Your task to perform on an android device: change notifications settings Image 0: 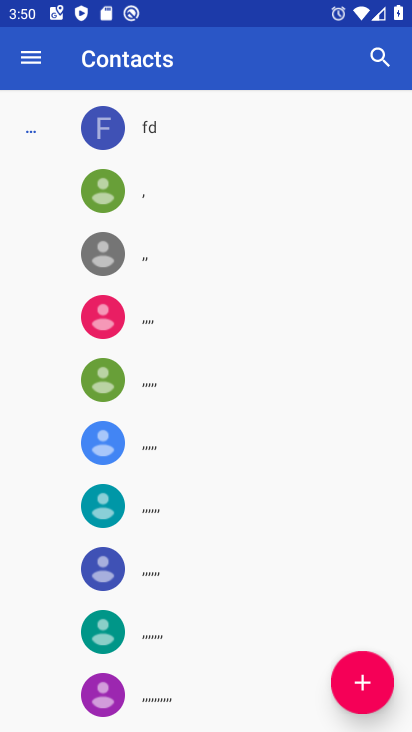
Step 0: press home button
Your task to perform on an android device: change notifications settings Image 1: 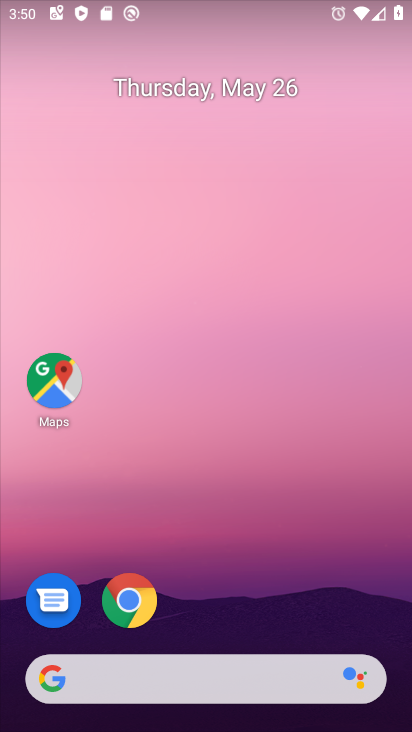
Step 1: click (265, 595)
Your task to perform on an android device: change notifications settings Image 2: 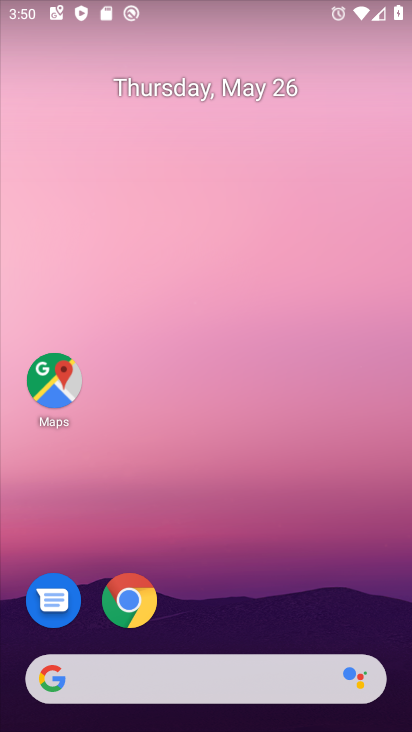
Step 2: drag from (245, 632) to (294, 43)
Your task to perform on an android device: change notifications settings Image 3: 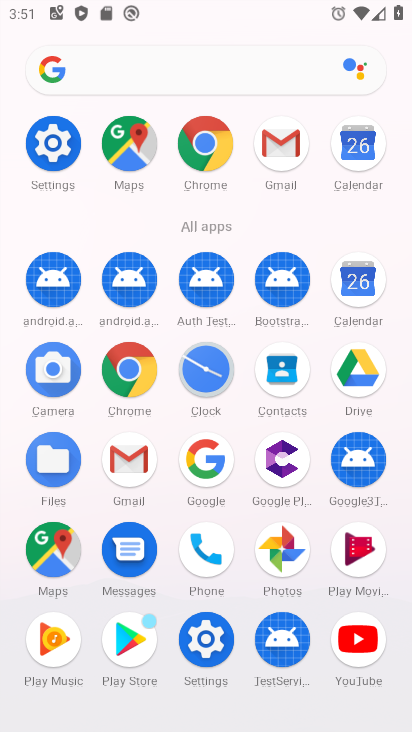
Step 3: click (51, 159)
Your task to perform on an android device: change notifications settings Image 4: 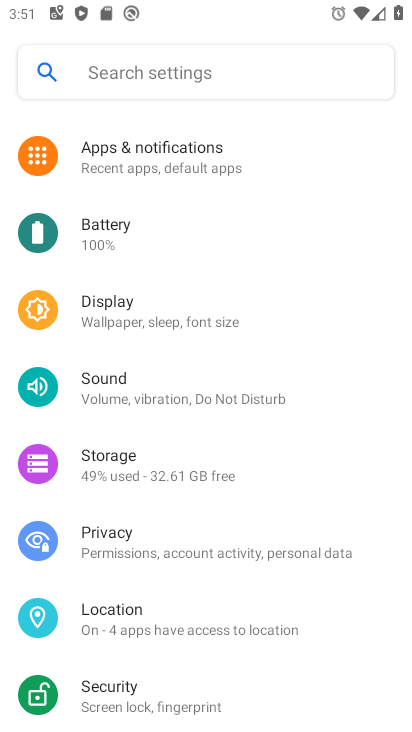
Step 4: click (192, 135)
Your task to perform on an android device: change notifications settings Image 5: 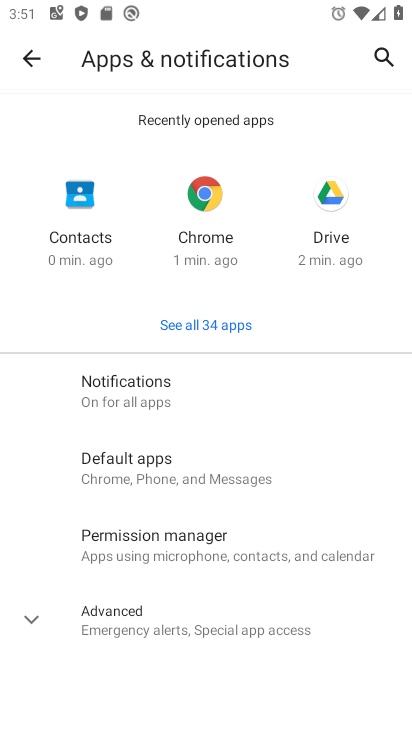
Step 5: click (132, 397)
Your task to perform on an android device: change notifications settings Image 6: 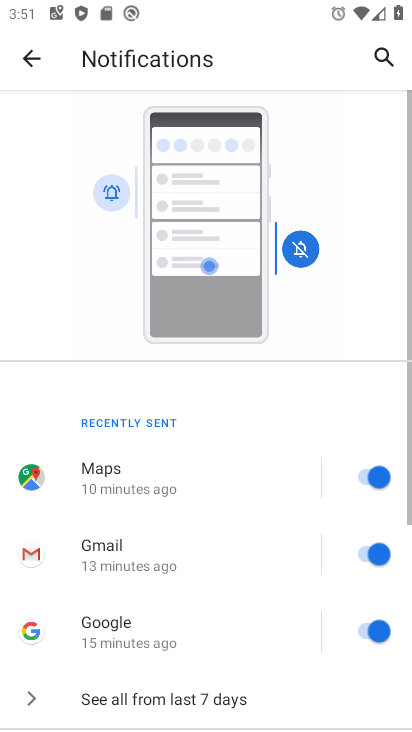
Step 6: drag from (189, 573) to (216, 257)
Your task to perform on an android device: change notifications settings Image 7: 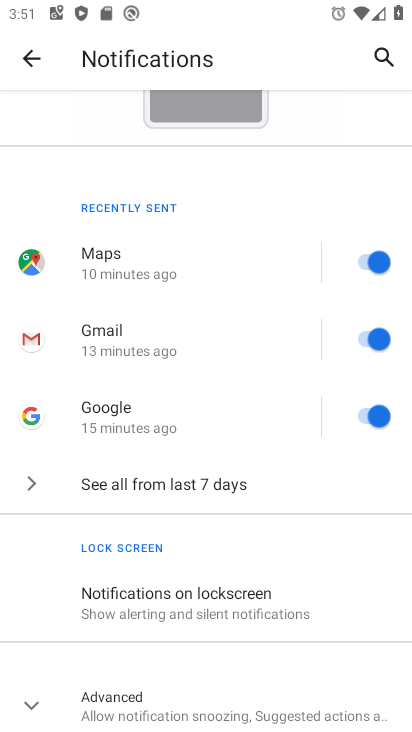
Step 7: click (184, 479)
Your task to perform on an android device: change notifications settings Image 8: 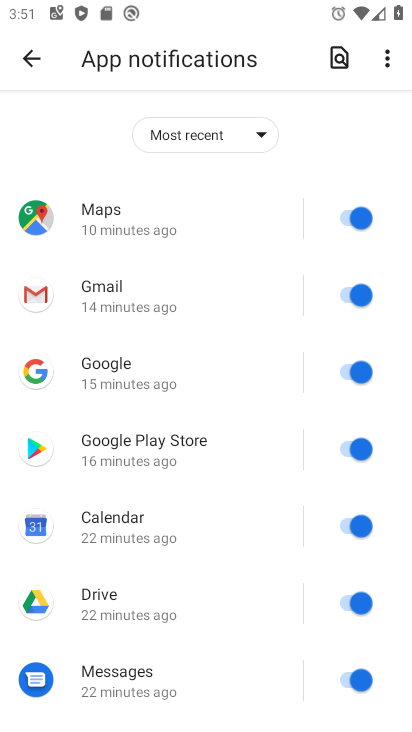
Step 8: drag from (191, 503) to (203, 379)
Your task to perform on an android device: change notifications settings Image 9: 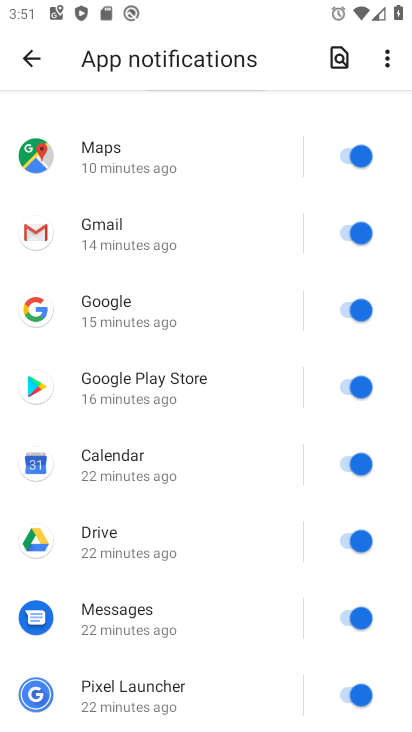
Step 9: click (354, 149)
Your task to perform on an android device: change notifications settings Image 10: 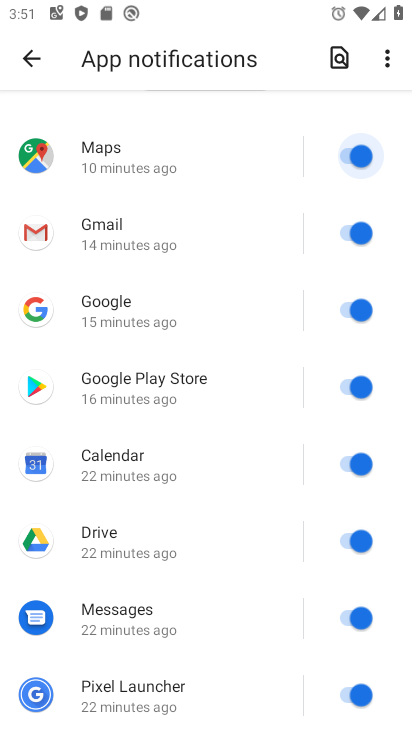
Step 10: click (340, 244)
Your task to perform on an android device: change notifications settings Image 11: 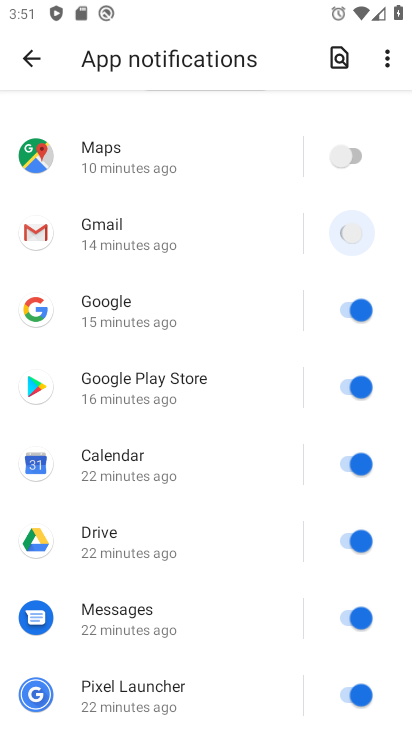
Step 11: click (346, 325)
Your task to perform on an android device: change notifications settings Image 12: 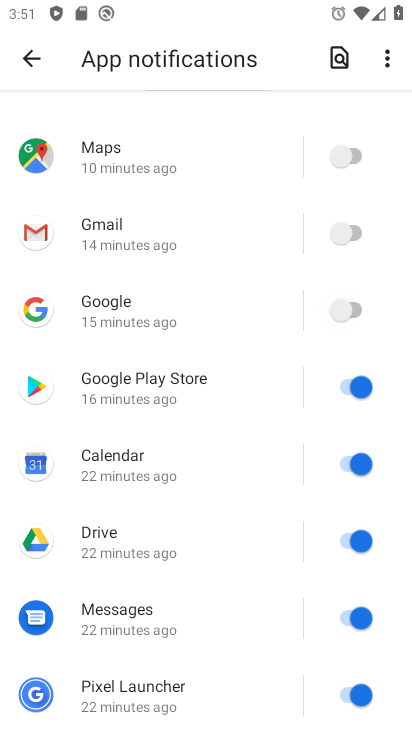
Step 12: click (334, 410)
Your task to perform on an android device: change notifications settings Image 13: 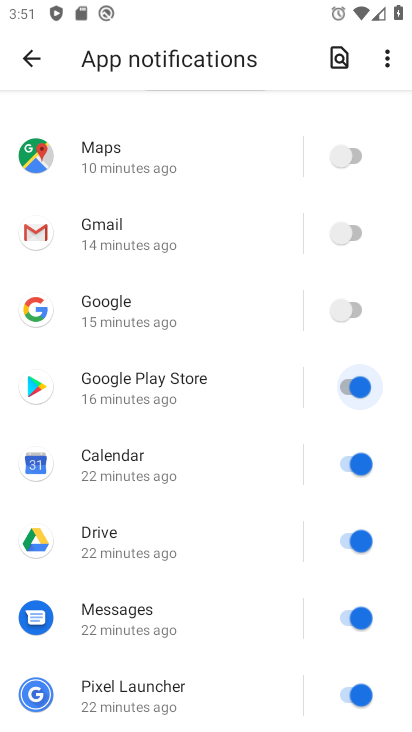
Step 13: click (329, 481)
Your task to perform on an android device: change notifications settings Image 14: 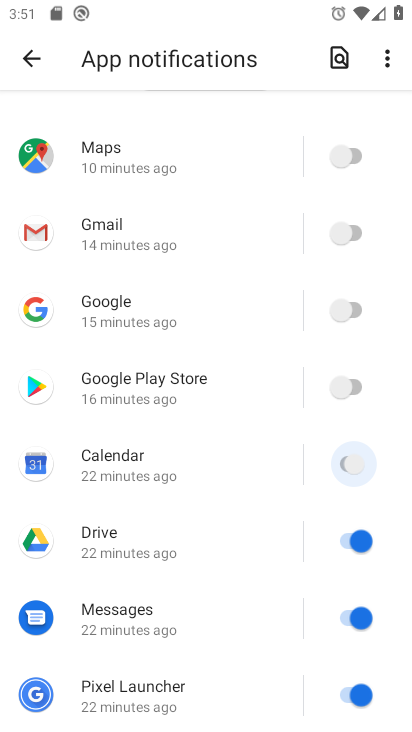
Step 14: click (334, 552)
Your task to perform on an android device: change notifications settings Image 15: 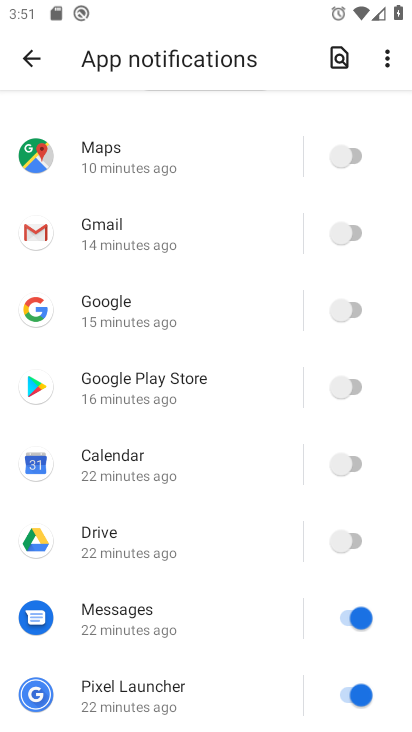
Step 15: click (336, 612)
Your task to perform on an android device: change notifications settings Image 16: 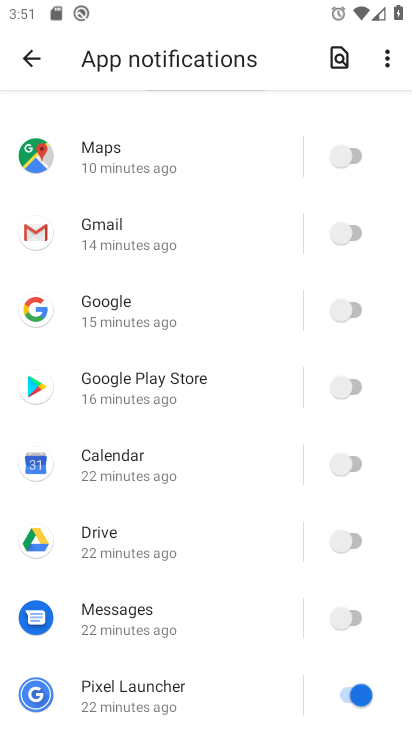
Step 16: click (333, 688)
Your task to perform on an android device: change notifications settings Image 17: 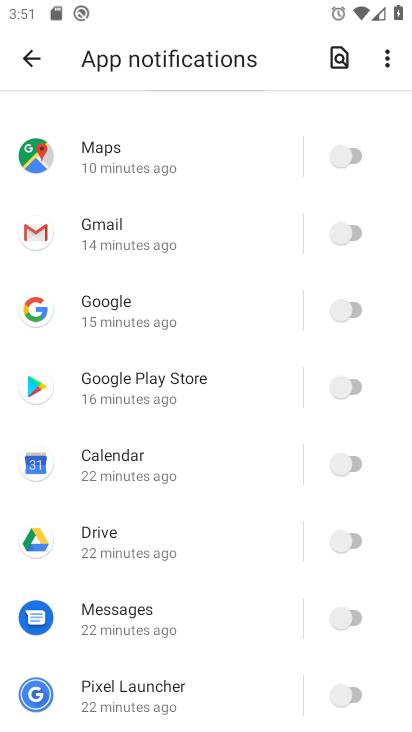
Step 17: drag from (238, 673) to (300, 196)
Your task to perform on an android device: change notifications settings Image 18: 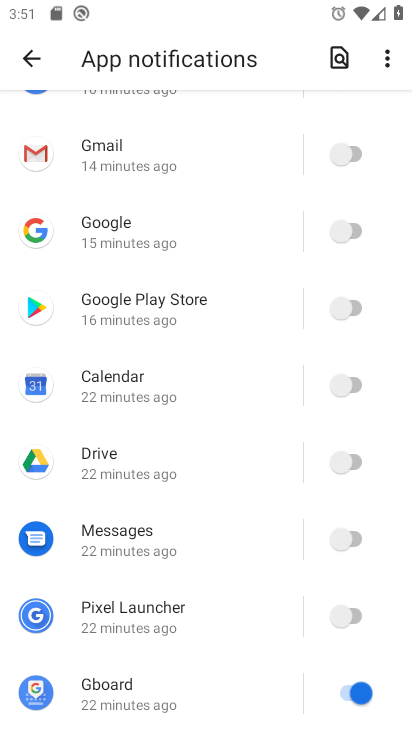
Step 18: click (335, 706)
Your task to perform on an android device: change notifications settings Image 19: 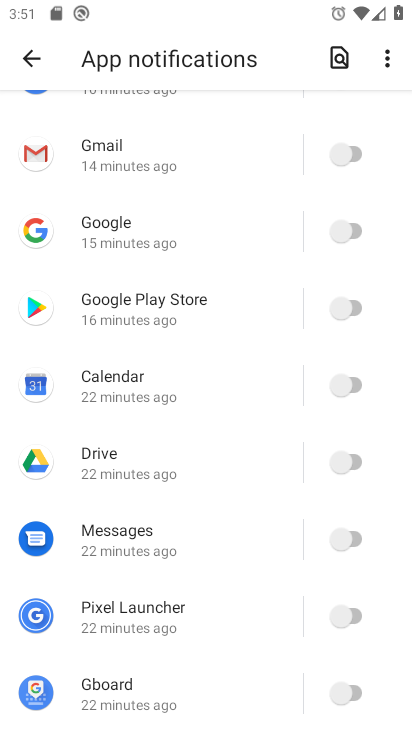
Step 19: task complete